Your task to perform on an android device: turn on sleep mode Image 0: 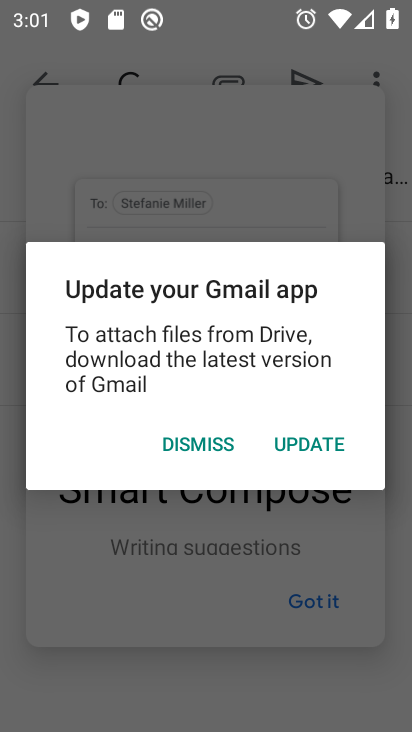
Step 0: press home button
Your task to perform on an android device: turn on sleep mode Image 1: 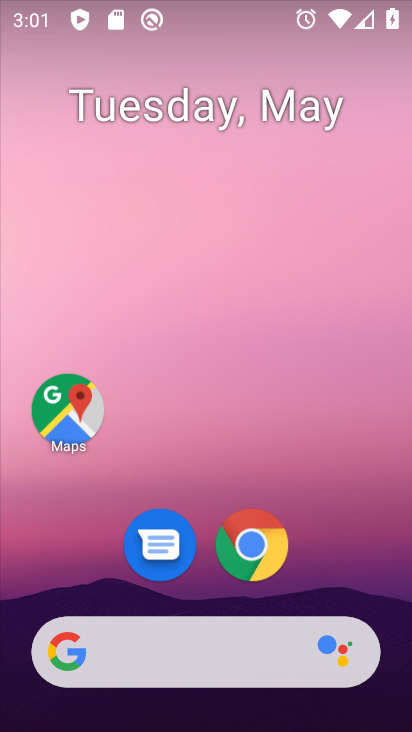
Step 1: drag from (160, 644) to (347, 499)
Your task to perform on an android device: turn on sleep mode Image 2: 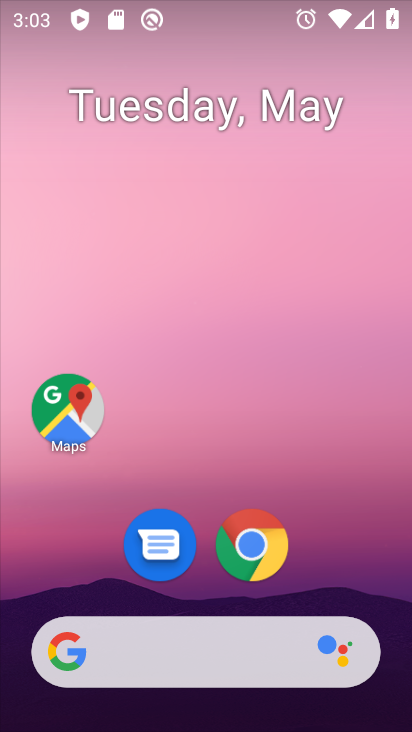
Step 2: click (52, 205)
Your task to perform on an android device: turn on sleep mode Image 3: 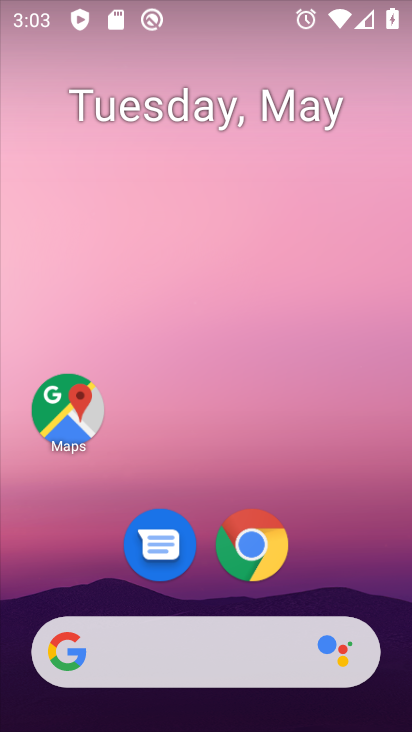
Step 3: drag from (192, 272) to (69, 34)
Your task to perform on an android device: turn on sleep mode Image 4: 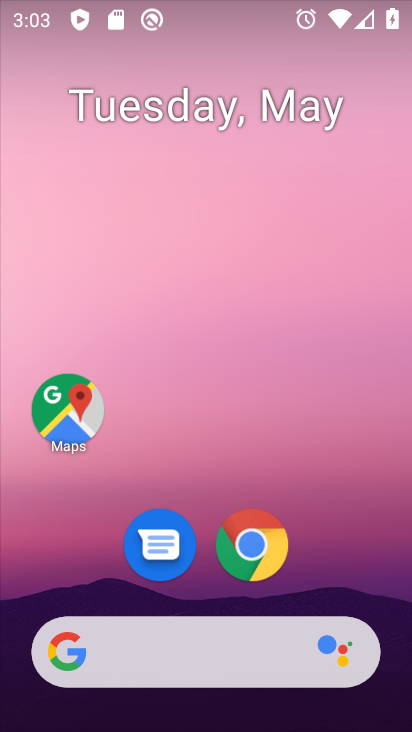
Step 4: drag from (210, 657) to (177, 31)
Your task to perform on an android device: turn on sleep mode Image 5: 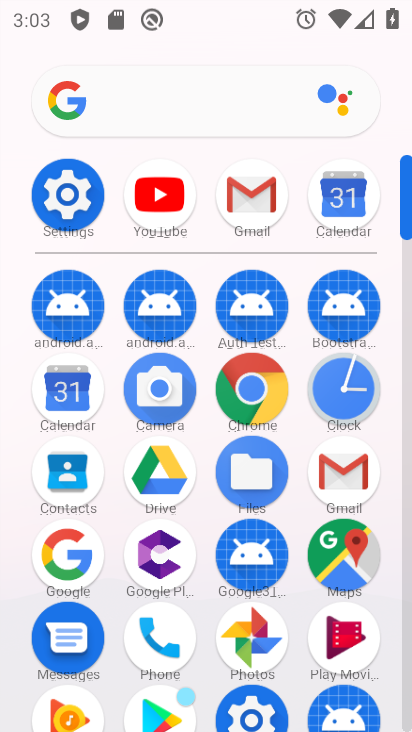
Step 5: click (65, 187)
Your task to perform on an android device: turn on sleep mode Image 6: 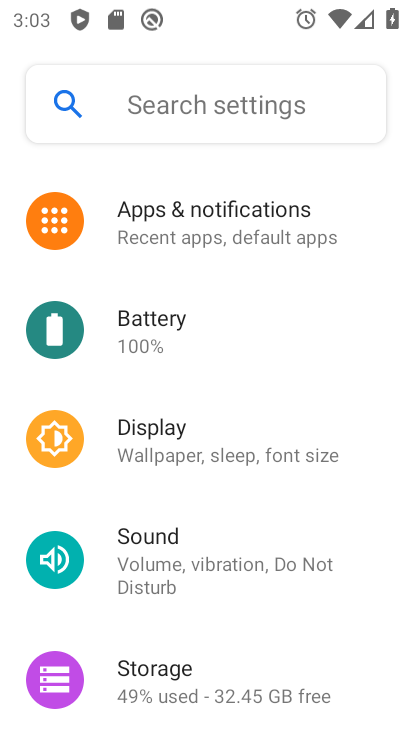
Step 6: click (177, 432)
Your task to perform on an android device: turn on sleep mode Image 7: 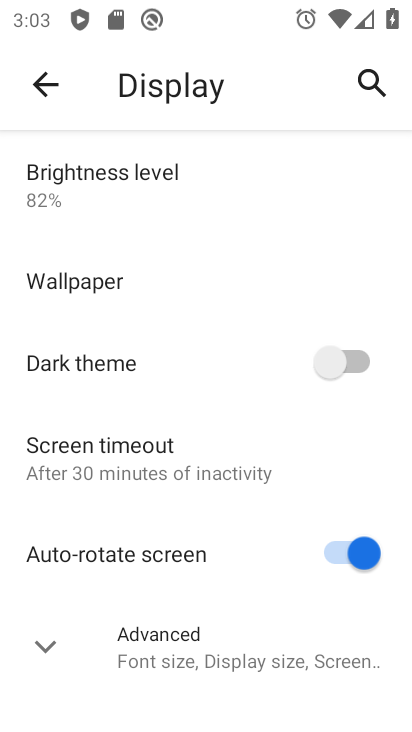
Step 7: drag from (179, 613) to (143, 4)
Your task to perform on an android device: turn on sleep mode Image 8: 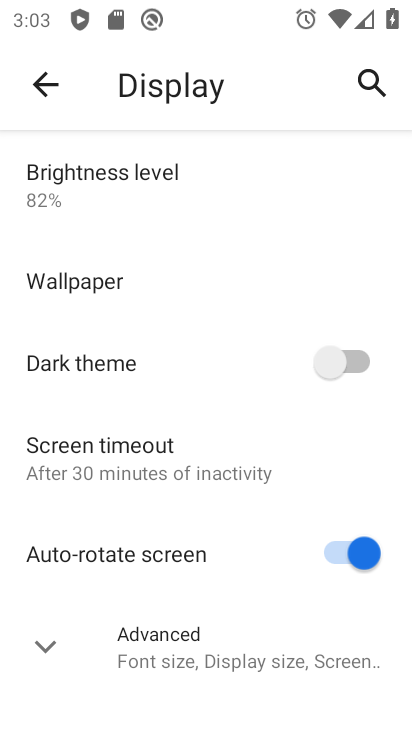
Step 8: click (217, 647)
Your task to perform on an android device: turn on sleep mode Image 9: 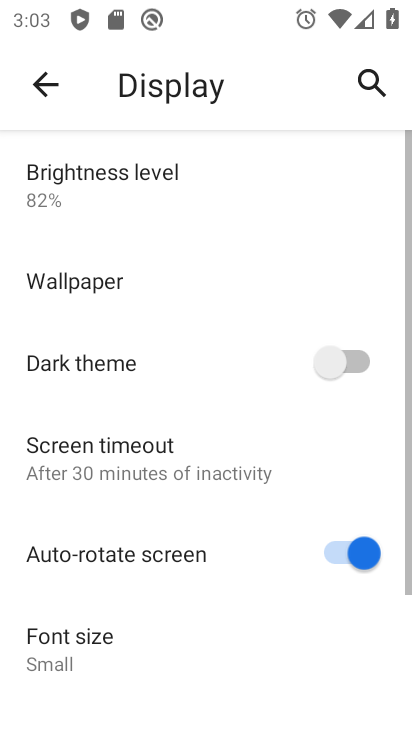
Step 9: task complete